Your task to perform on an android device: check storage Image 0: 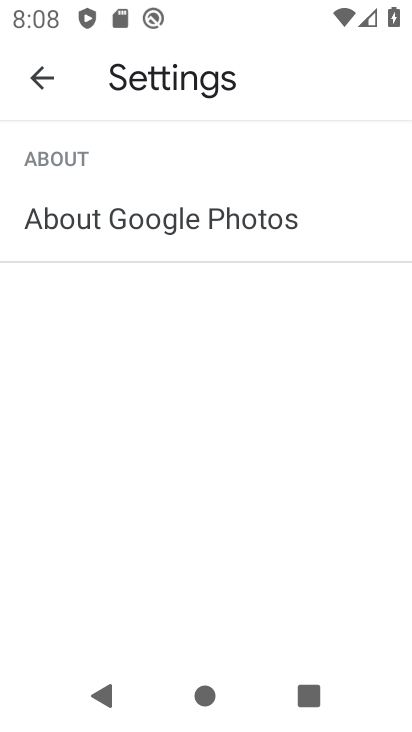
Step 0: press home button
Your task to perform on an android device: check storage Image 1: 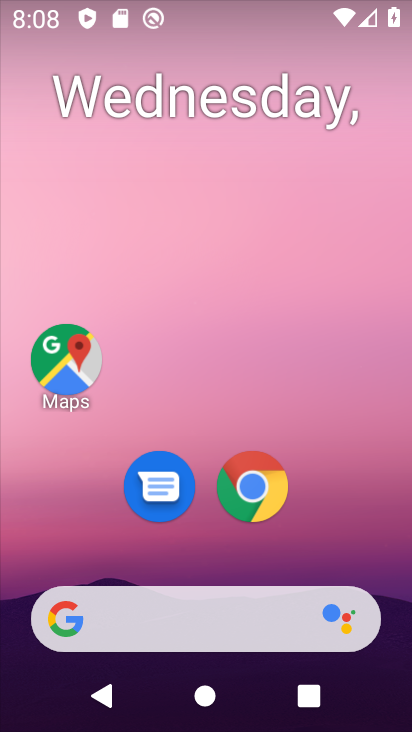
Step 1: drag from (401, 607) to (329, 81)
Your task to perform on an android device: check storage Image 2: 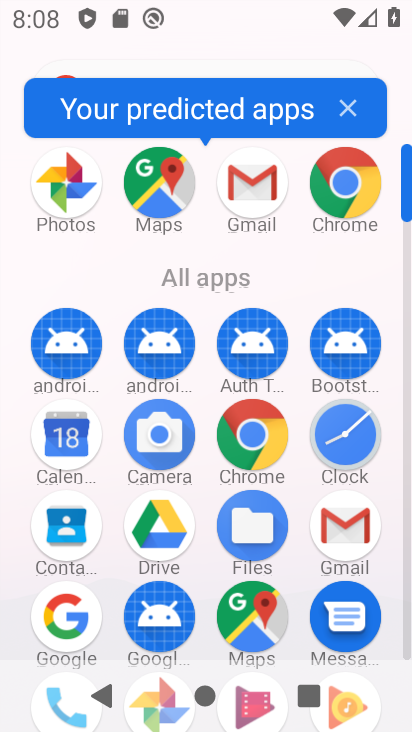
Step 2: click (406, 644)
Your task to perform on an android device: check storage Image 3: 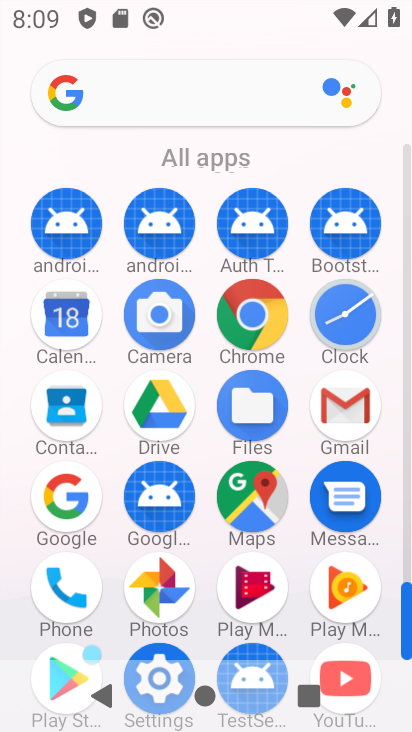
Step 3: click (157, 649)
Your task to perform on an android device: check storage Image 4: 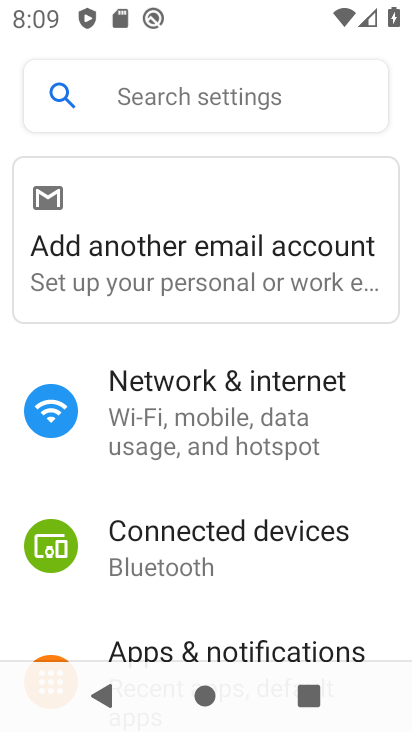
Step 4: drag from (378, 594) to (366, 176)
Your task to perform on an android device: check storage Image 5: 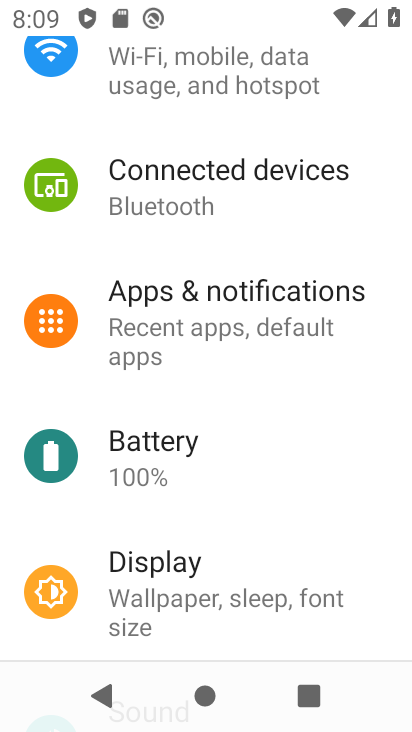
Step 5: drag from (377, 563) to (378, 213)
Your task to perform on an android device: check storage Image 6: 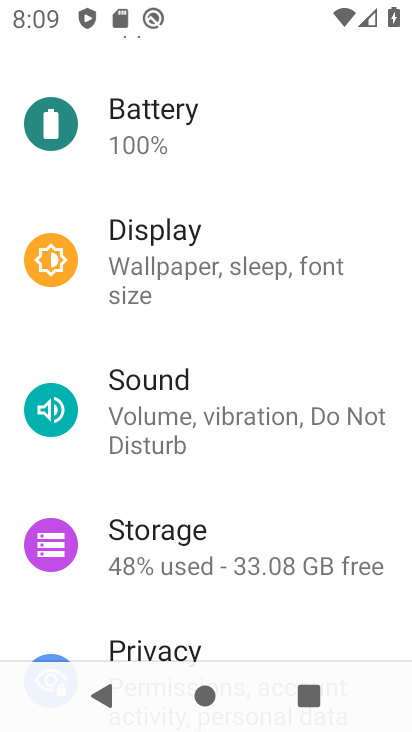
Step 6: click (135, 542)
Your task to perform on an android device: check storage Image 7: 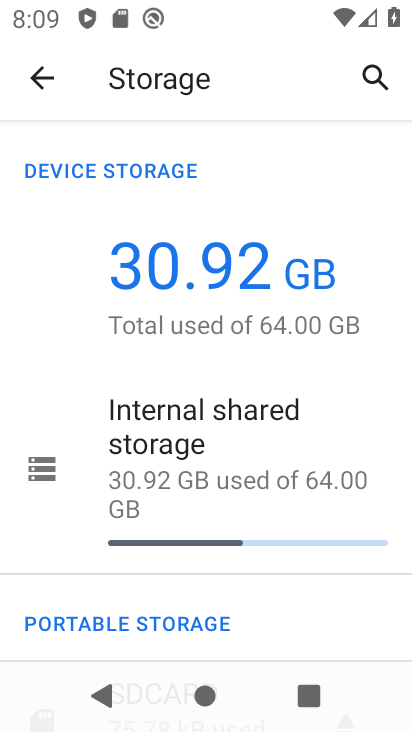
Step 7: task complete